Your task to perform on an android device: turn on improve location accuracy Image 0: 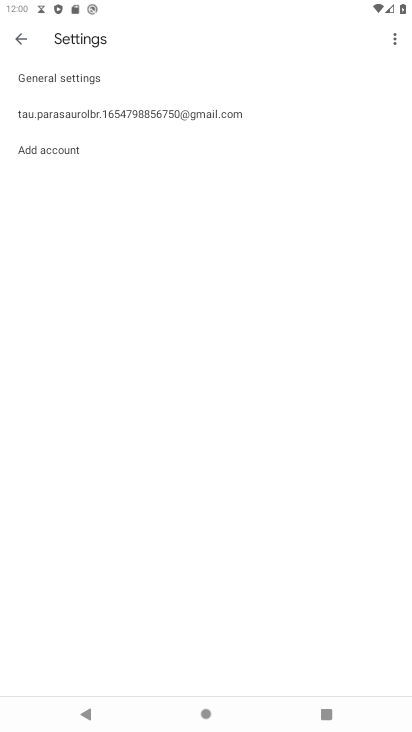
Step 0: press home button
Your task to perform on an android device: turn on improve location accuracy Image 1: 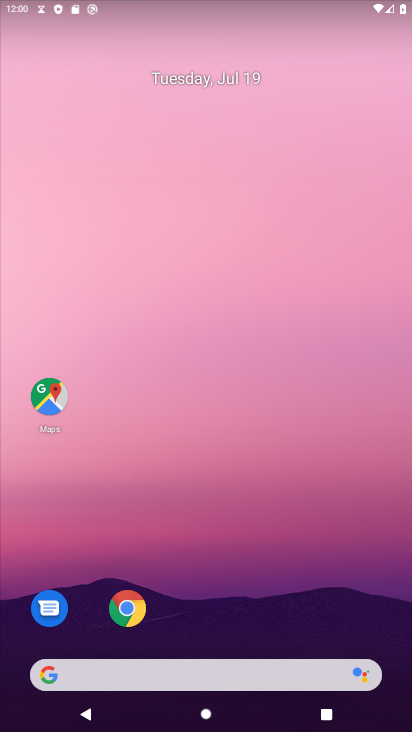
Step 1: drag from (267, 683) to (241, 0)
Your task to perform on an android device: turn on improve location accuracy Image 2: 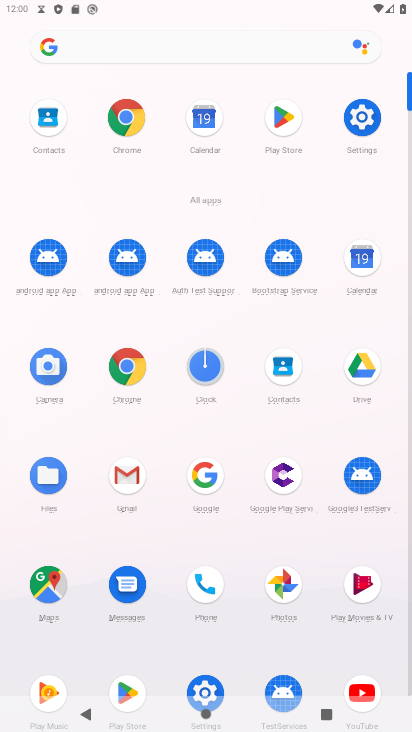
Step 2: click (360, 109)
Your task to perform on an android device: turn on improve location accuracy Image 3: 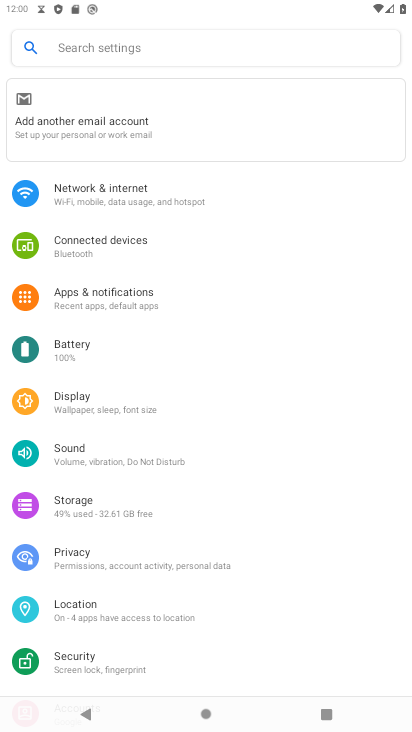
Step 3: click (146, 619)
Your task to perform on an android device: turn on improve location accuracy Image 4: 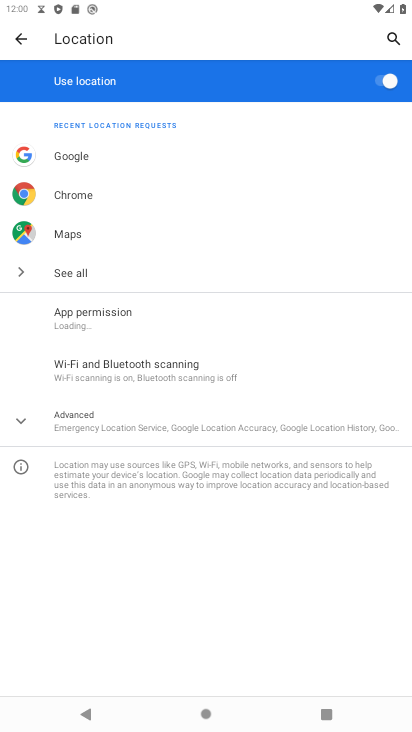
Step 4: click (84, 421)
Your task to perform on an android device: turn on improve location accuracy Image 5: 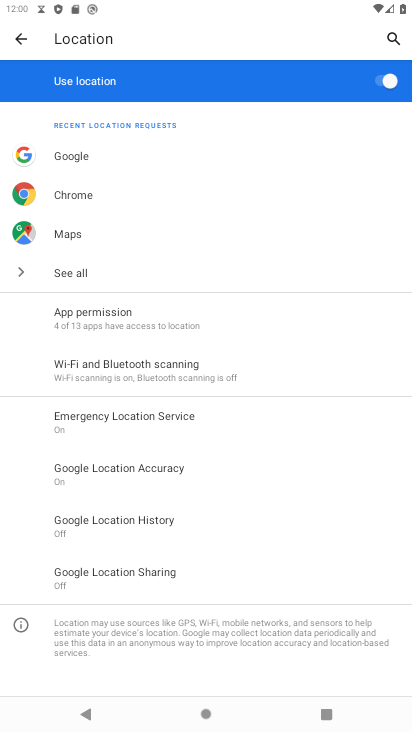
Step 5: click (140, 482)
Your task to perform on an android device: turn on improve location accuracy Image 6: 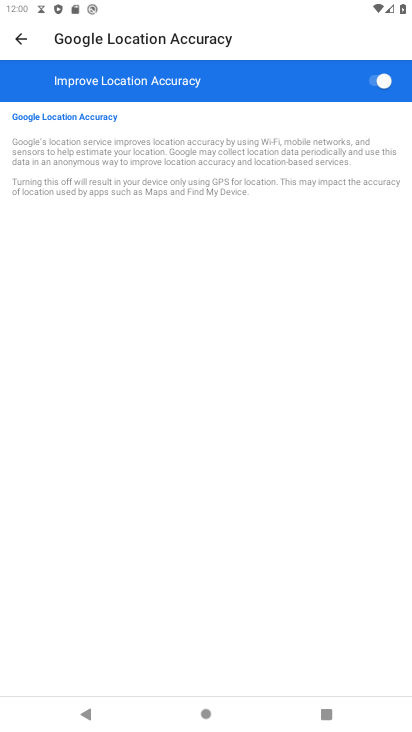
Step 6: task complete